Your task to perform on an android device: Go to Android settings Image 0: 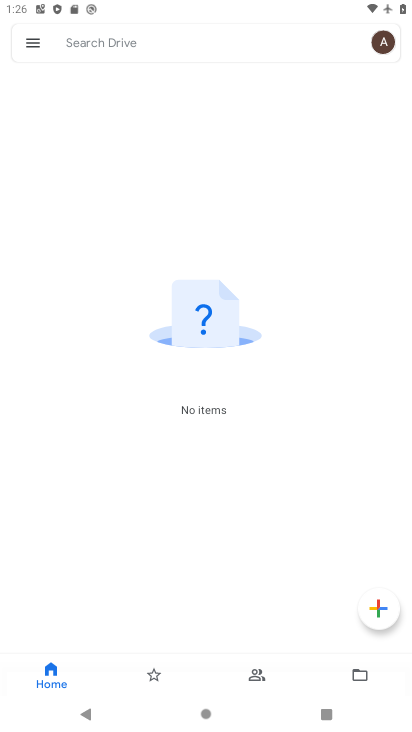
Step 0: press home button
Your task to perform on an android device: Go to Android settings Image 1: 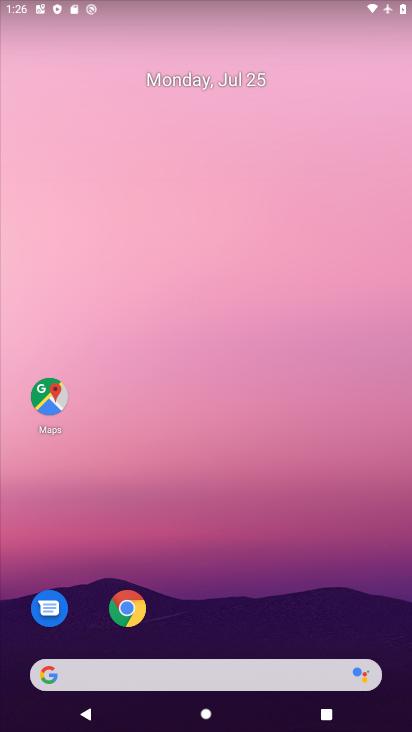
Step 1: drag from (214, 606) to (235, 53)
Your task to perform on an android device: Go to Android settings Image 2: 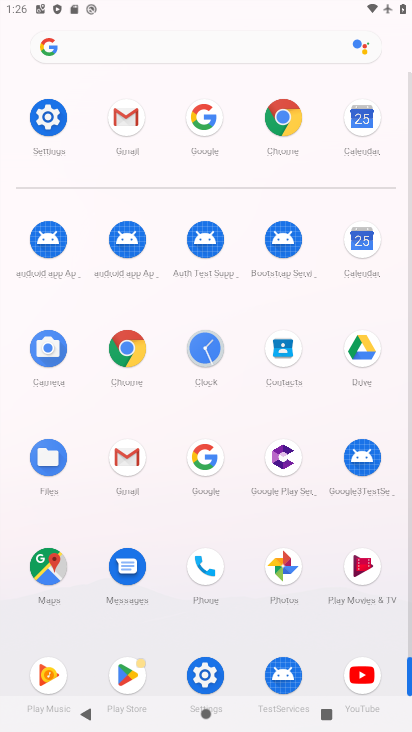
Step 2: click (46, 131)
Your task to perform on an android device: Go to Android settings Image 3: 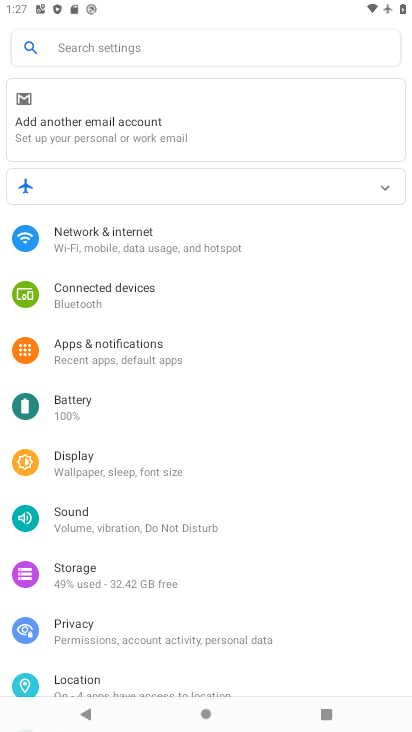
Step 3: drag from (139, 516) to (163, 215)
Your task to perform on an android device: Go to Android settings Image 4: 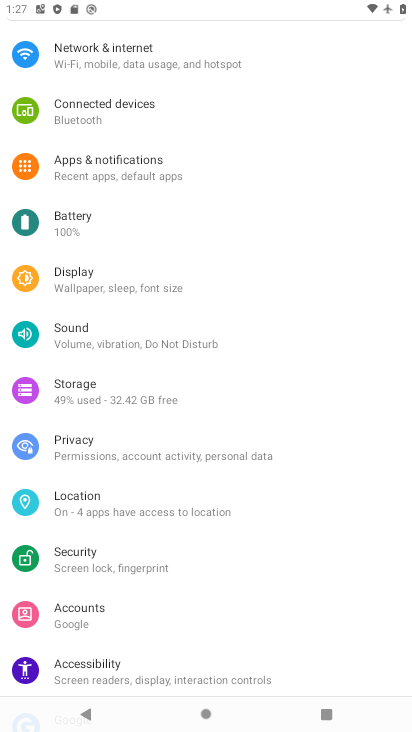
Step 4: drag from (157, 526) to (182, 190)
Your task to perform on an android device: Go to Android settings Image 5: 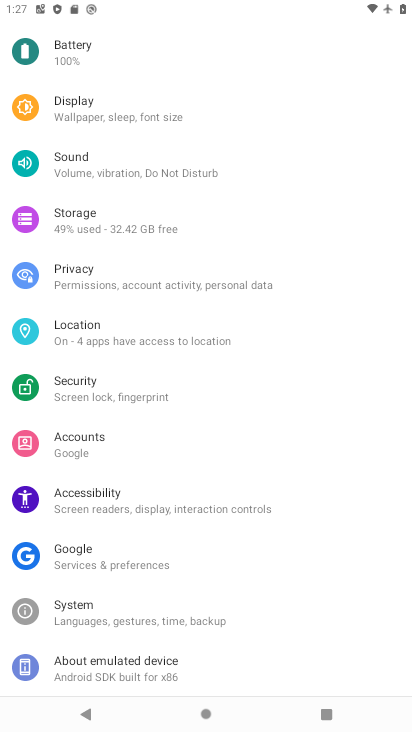
Step 5: drag from (153, 567) to (147, 288)
Your task to perform on an android device: Go to Android settings Image 6: 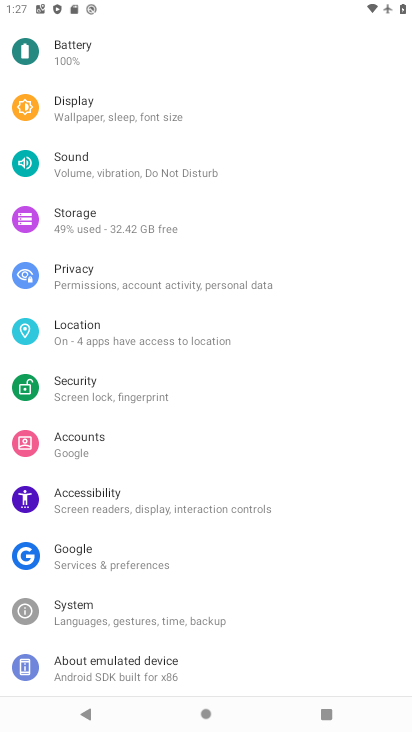
Step 6: click (131, 667)
Your task to perform on an android device: Go to Android settings Image 7: 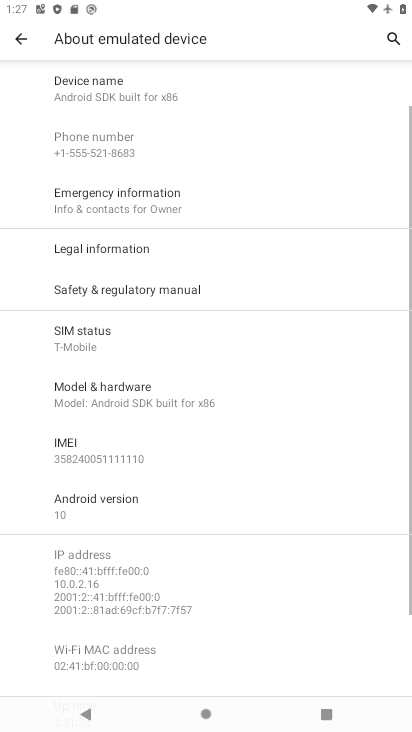
Step 7: click (131, 505)
Your task to perform on an android device: Go to Android settings Image 8: 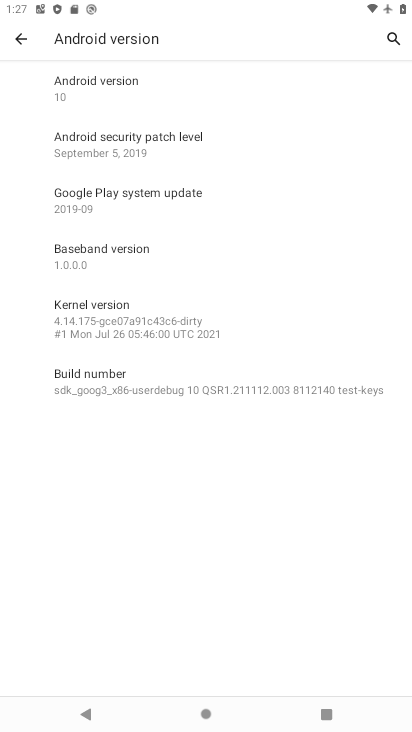
Step 8: task complete